Your task to perform on an android device: Open ESPN.com Image 0: 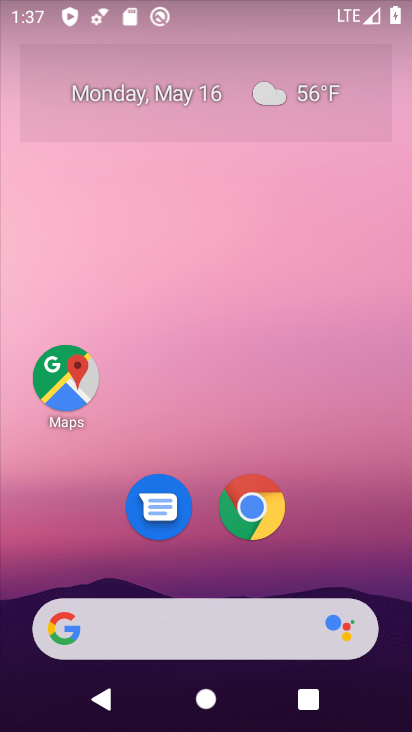
Step 0: click (259, 530)
Your task to perform on an android device: Open ESPN.com Image 1: 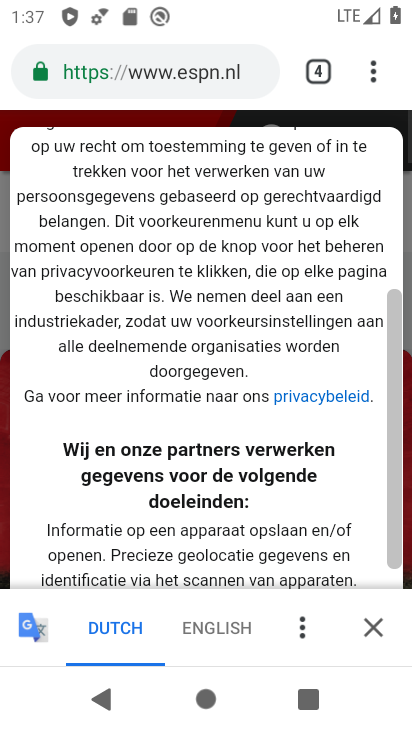
Step 1: click (321, 65)
Your task to perform on an android device: Open ESPN.com Image 2: 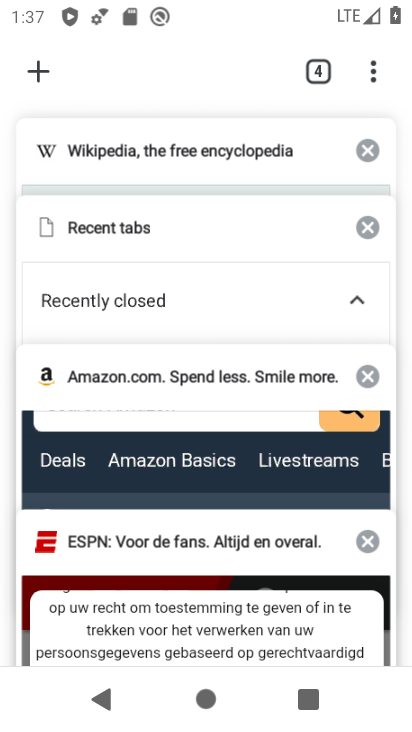
Step 2: click (358, 236)
Your task to perform on an android device: Open ESPN.com Image 3: 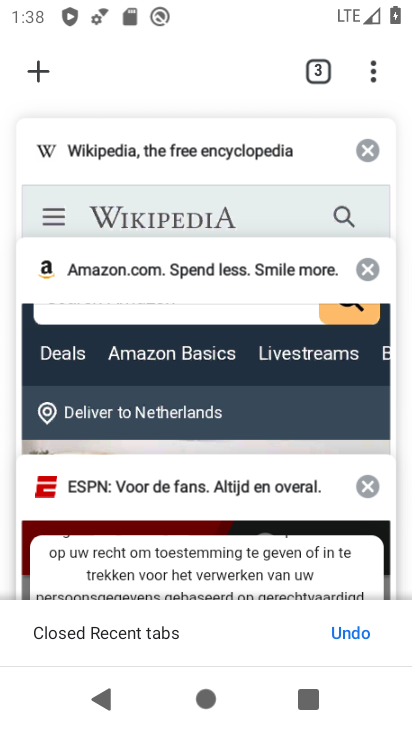
Step 3: click (189, 508)
Your task to perform on an android device: Open ESPN.com Image 4: 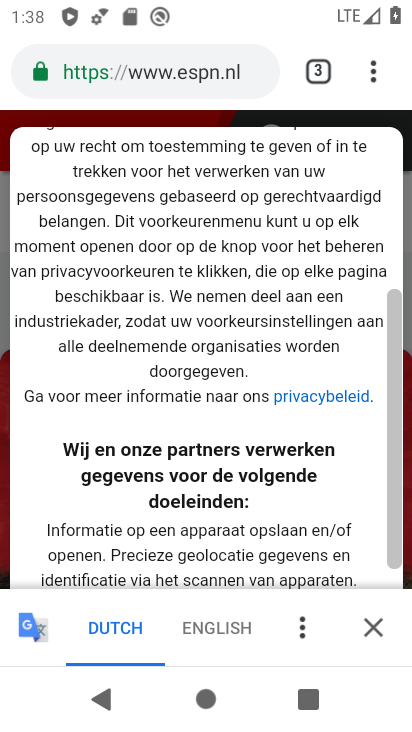
Step 4: task complete